Your task to perform on an android device: move a message to another label in the gmail app Image 0: 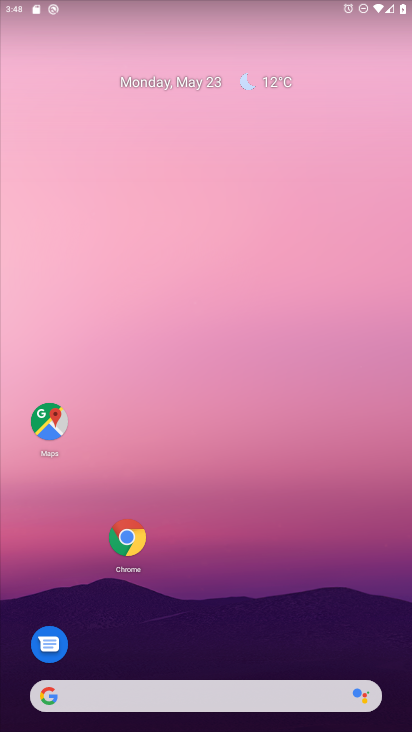
Step 0: drag from (219, 486) to (216, 15)
Your task to perform on an android device: move a message to another label in the gmail app Image 1: 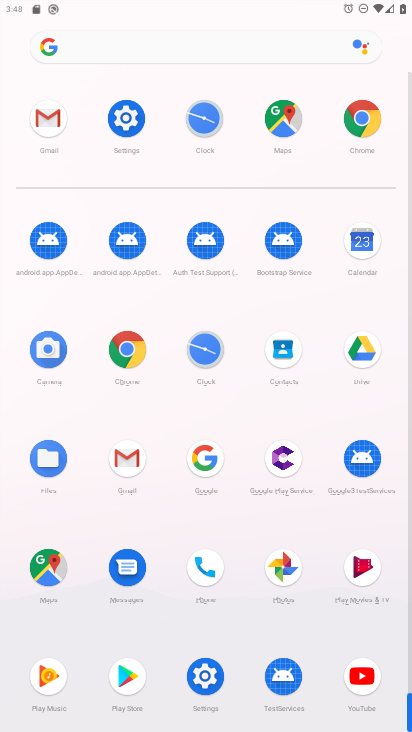
Step 1: click (121, 459)
Your task to perform on an android device: move a message to another label in the gmail app Image 2: 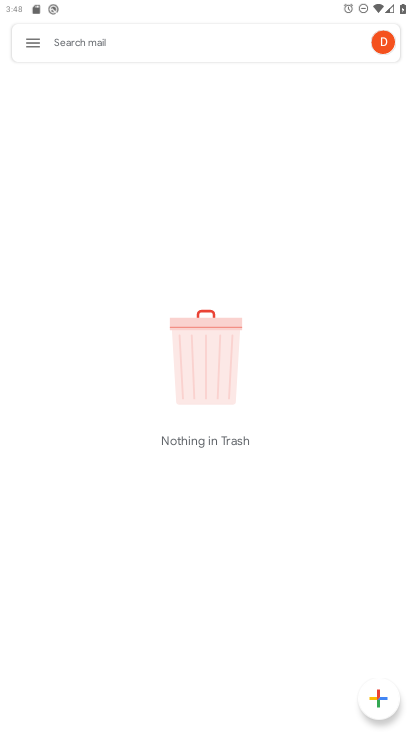
Step 2: click (43, 47)
Your task to perform on an android device: move a message to another label in the gmail app Image 3: 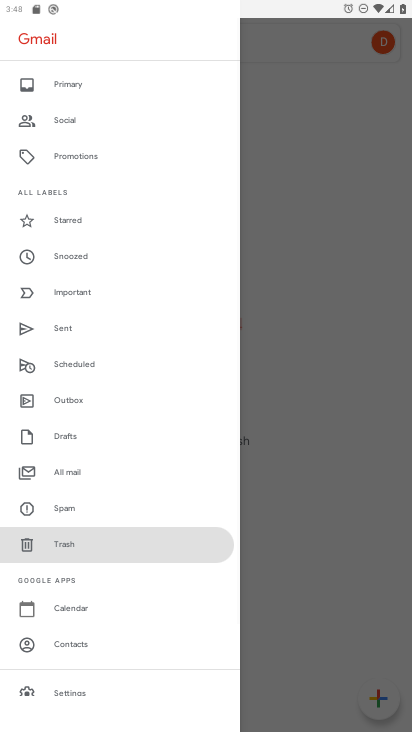
Step 3: click (84, 475)
Your task to perform on an android device: move a message to another label in the gmail app Image 4: 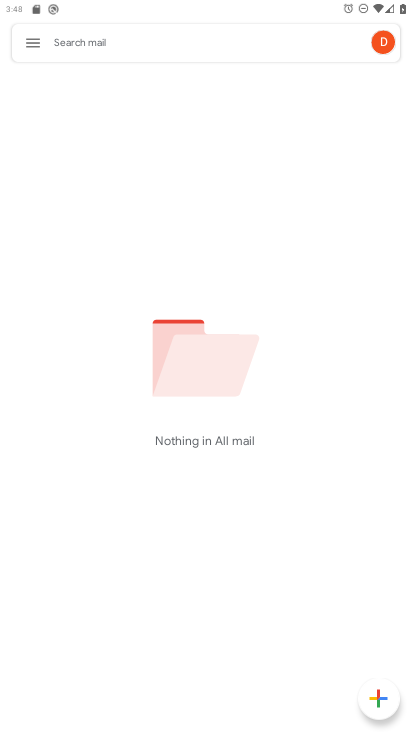
Step 4: task complete